Your task to perform on an android device: Go to wifi settings Image 0: 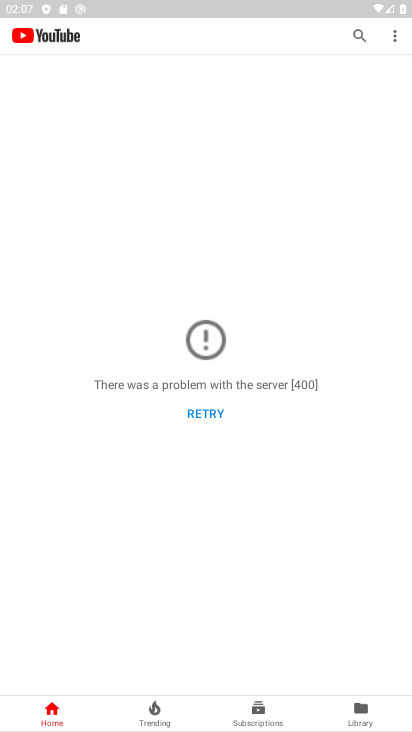
Step 0: press back button
Your task to perform on an android device: Go to wifi settings Image 1: 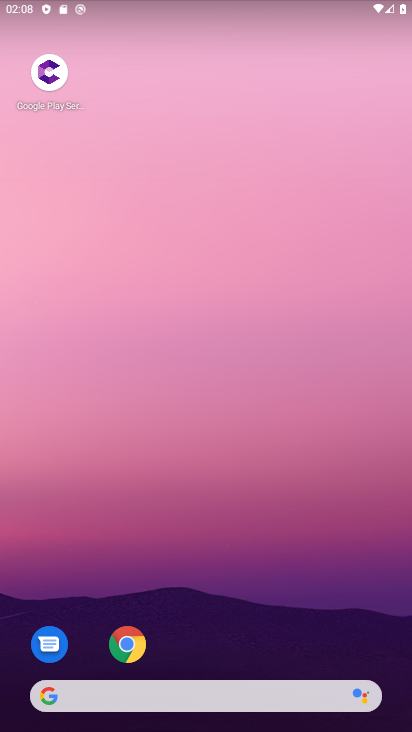
Step 1: drag from (48, 4) to (162, 524)
Your task to perform on an android device: Go to wifi settings Image 2: 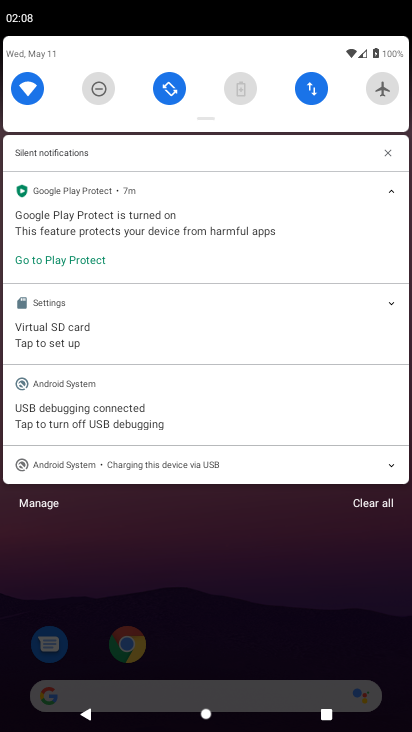
Step 2: click (29, 78)
Your task to perform on an android device: Go to wifi settings Image 3: 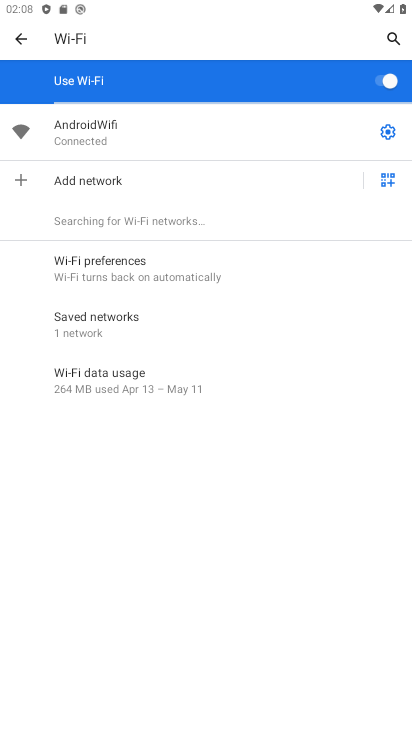
Step 3: task complete